Your task to perform on an android device: Go to battery settings Image 0: 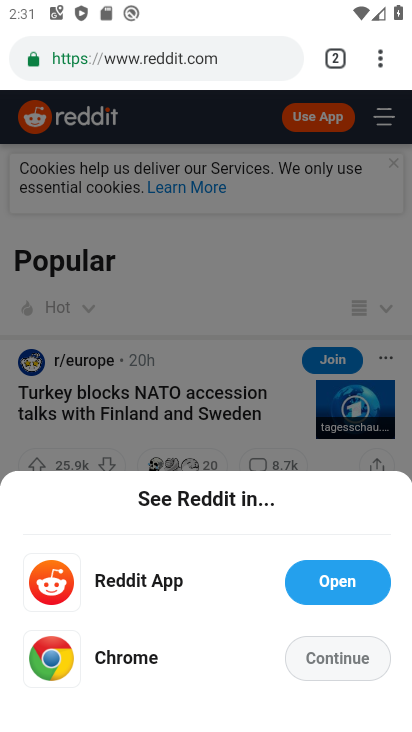
Step 0: press home button
Your task to perform on an android device: Go to battery settings Image 1: 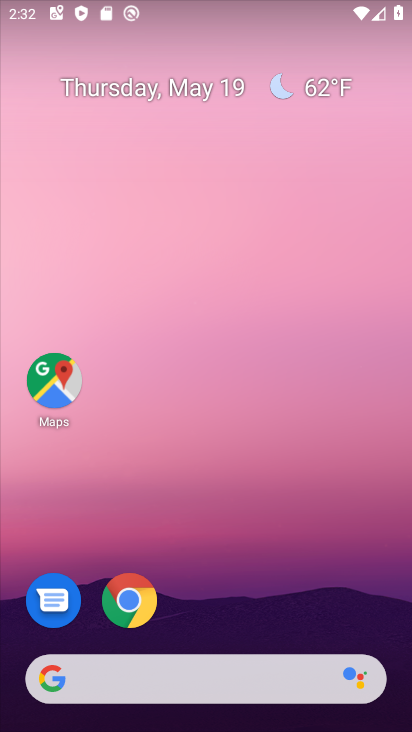
Step 1: drag from (14, 676) to (241, 112)
Your task to perform on an android device: Go to battery settings Image 2: 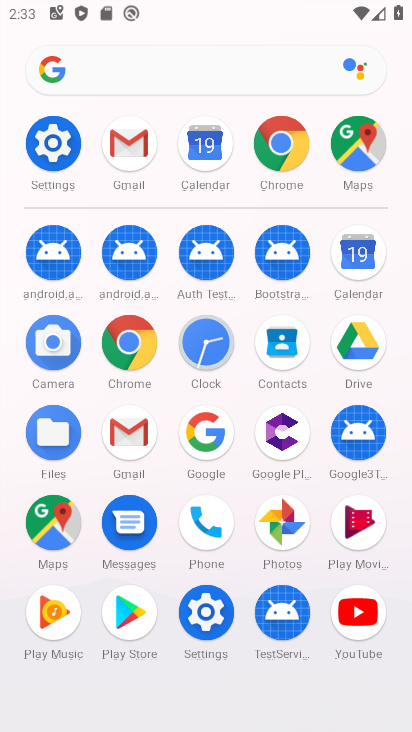
Step 2: click (32, 135)
Your task to perform on an android device: Go to battery settings Image 3: 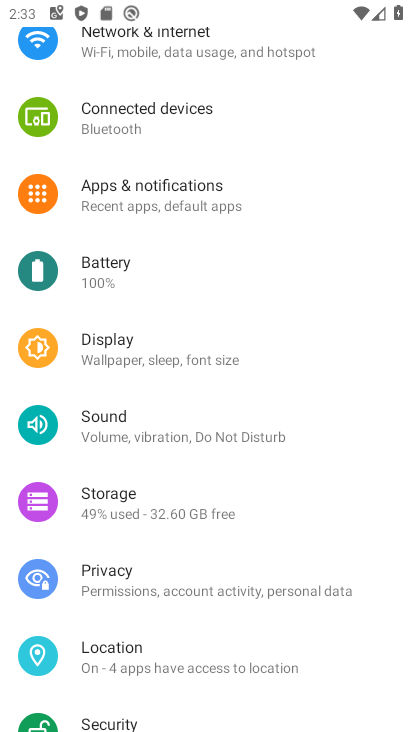
Step 3: click (76, 273)
Your task to perform on an android device: Go to battery settings Image 4: 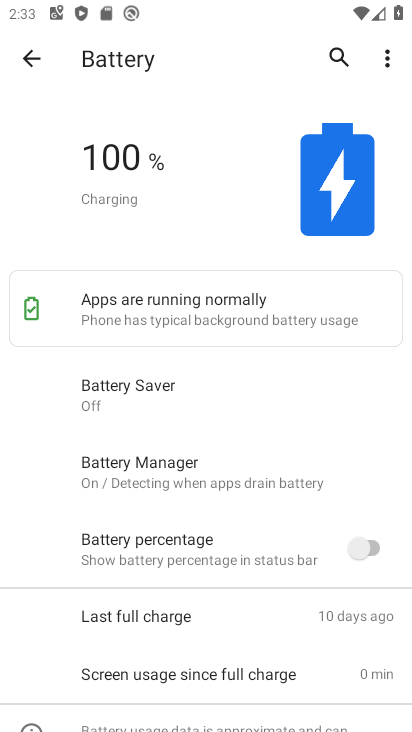
Step 4: task complete